Your task to perform on an android device: Search for flights from Boston to Zurich Image 0: 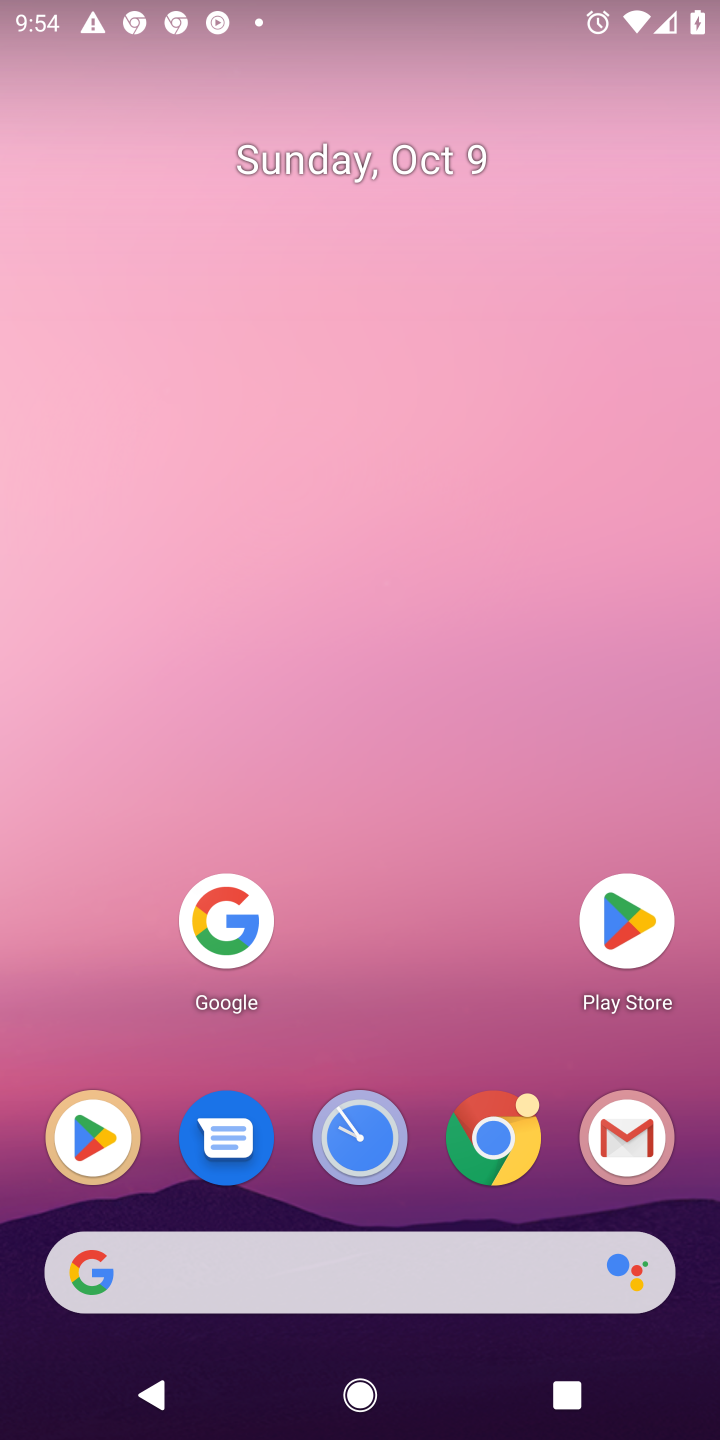
Step 0: click (224, 913)
Your task to perform on an android device: Search for flights from Boston to Zurich Image 1: 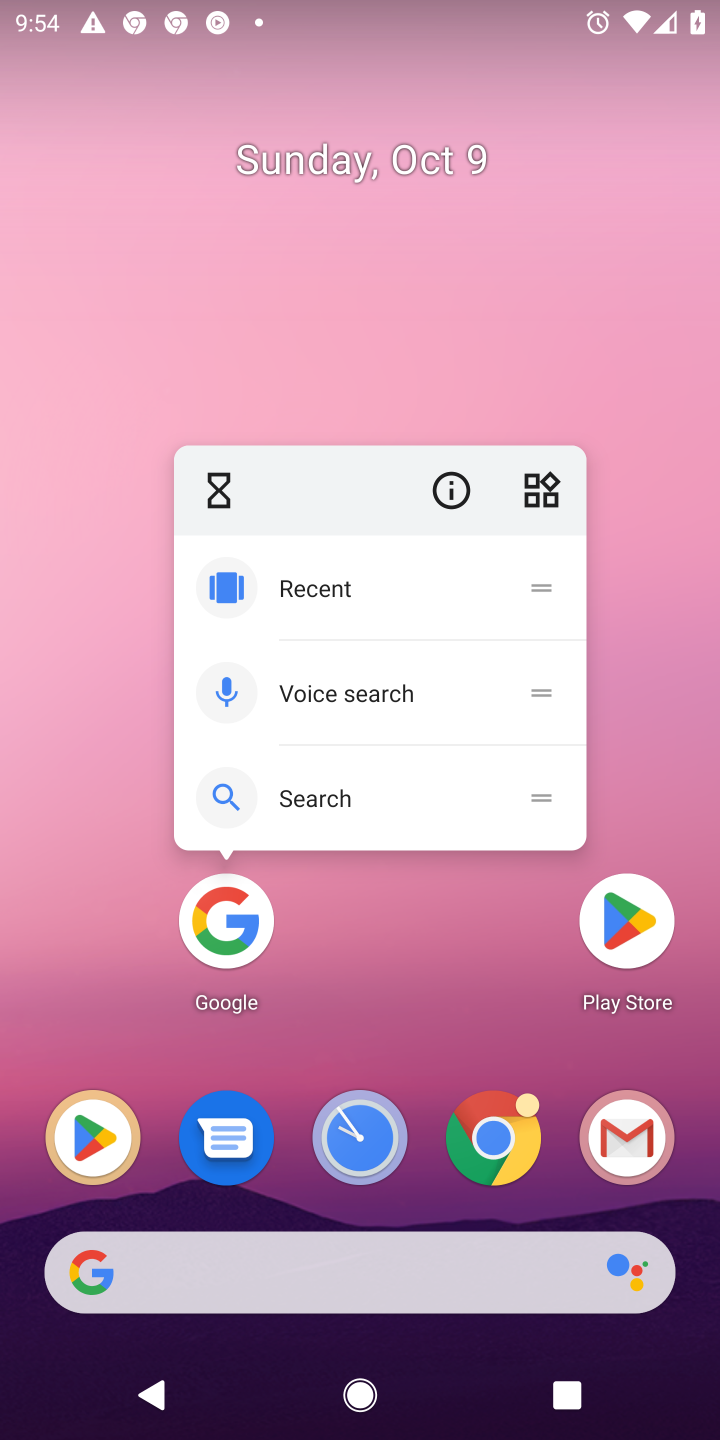
Step 1: click (224, 913)
Your task to perform on an android device: Search for flights from Boston to Zurich Image 2: 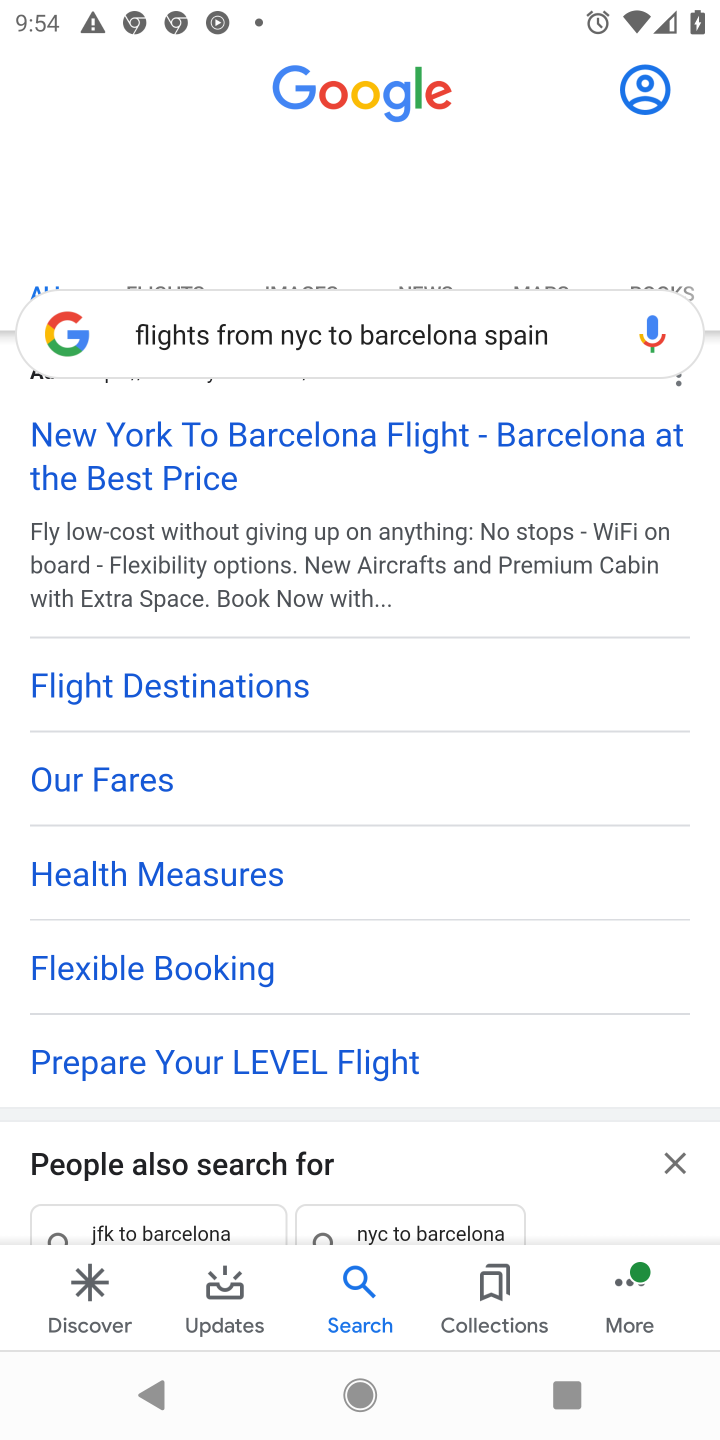
Step 2: click (445, 315)
Your task to perform on an android device: Search for flights from Boston to Zurich Image 3: 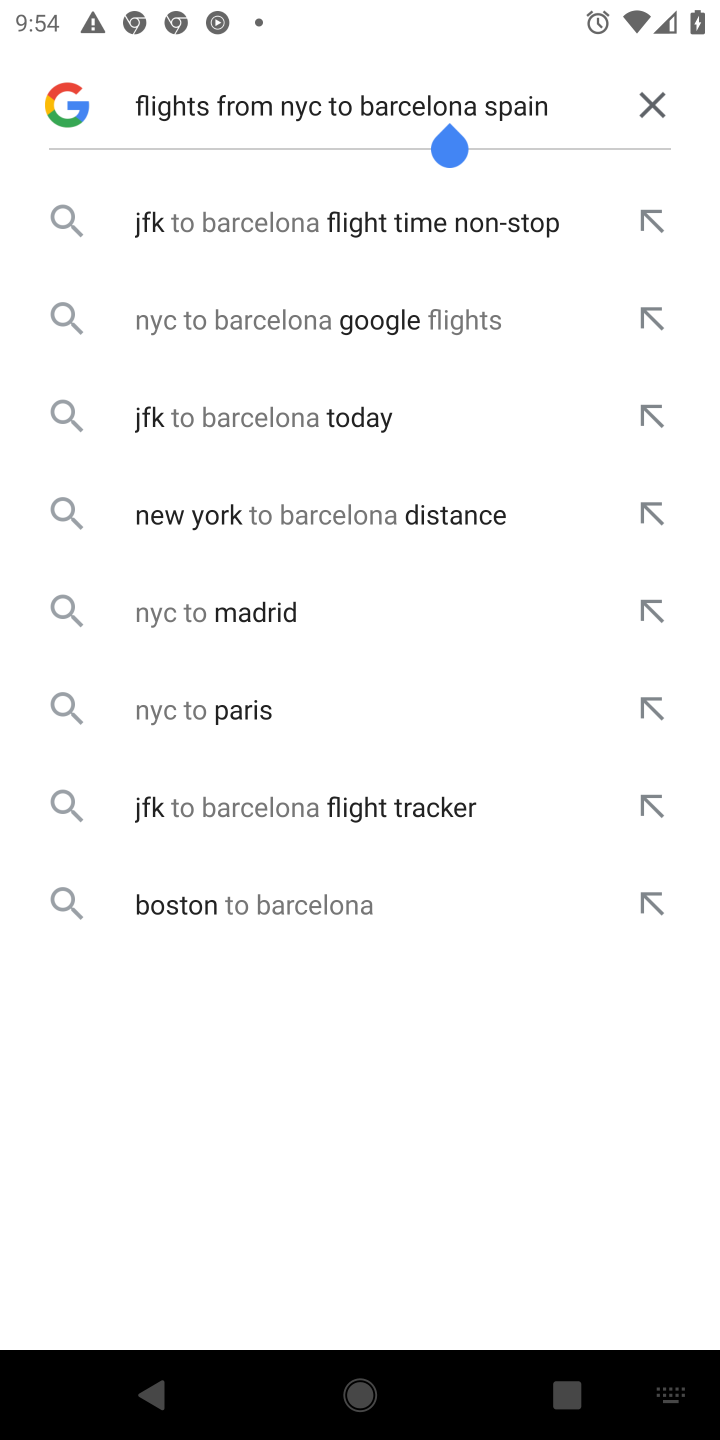
Step 3: click (662, 98)
Your task to perform on an android device: Search for flights from Boston to Zurich Image 4: 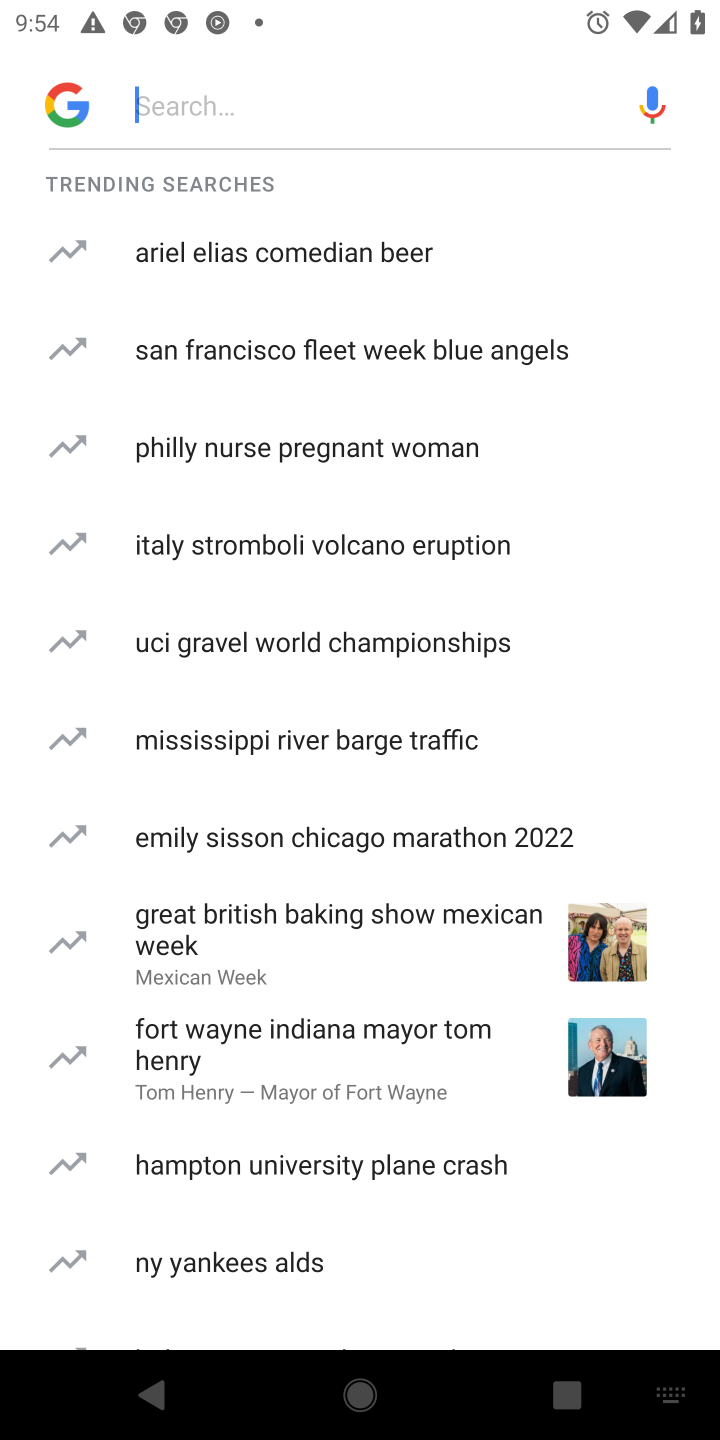
Step 4: click (215, 82)
Your task to perform on an android device: Search for flights from Boston to Zurich Image 5: 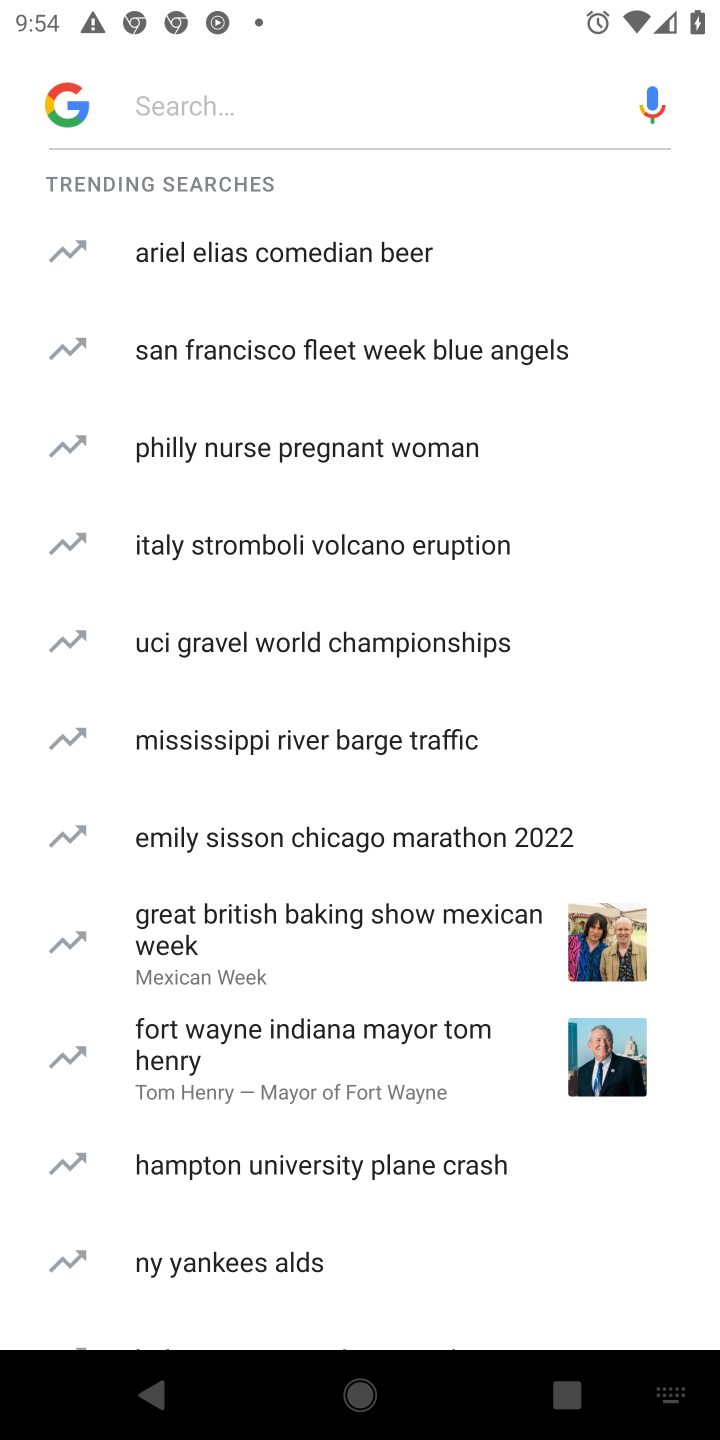
Step 5: type "flights from Boston to Zurich "
Your task to perform on an android device: Search for flights from Boston to Zurich Image 6: 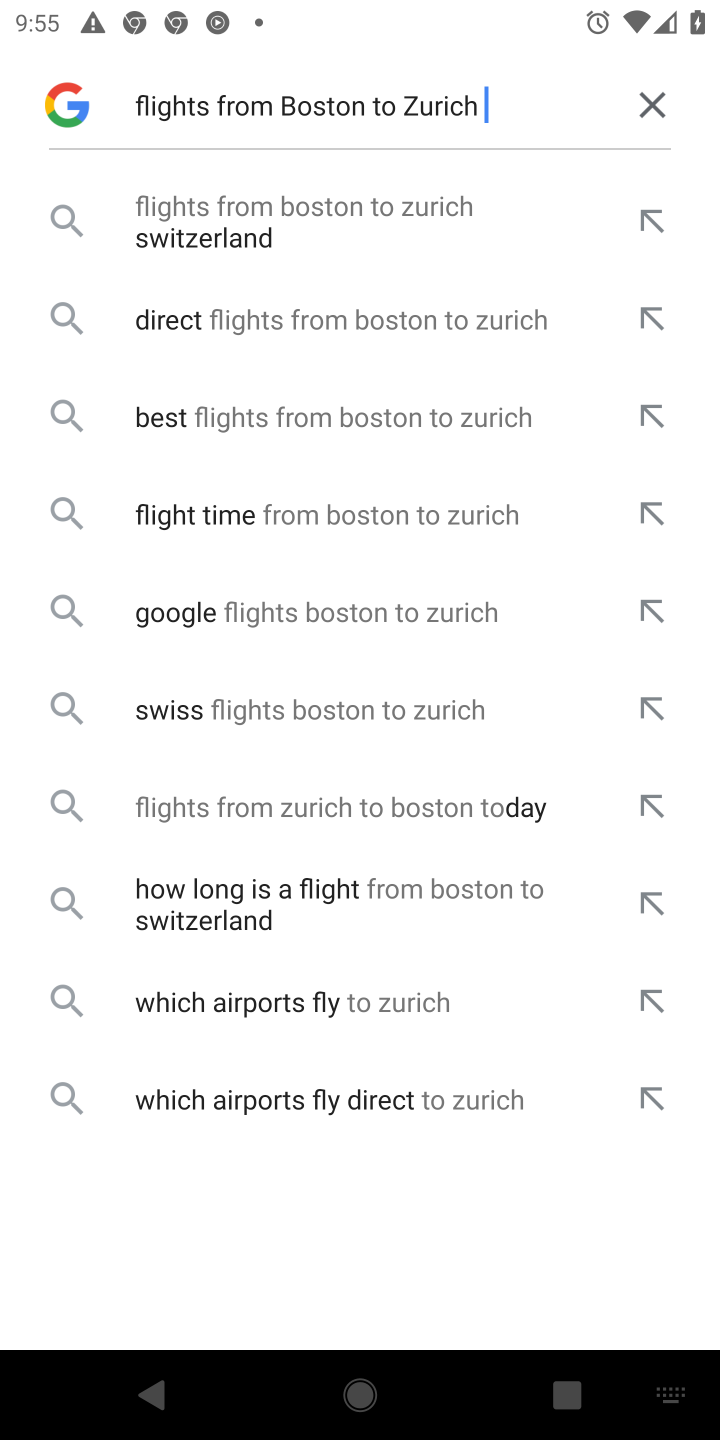
Step 6: click (367, 337)
Your task to perform on an android device: Search for flights from Boston to Zurich Image 7: 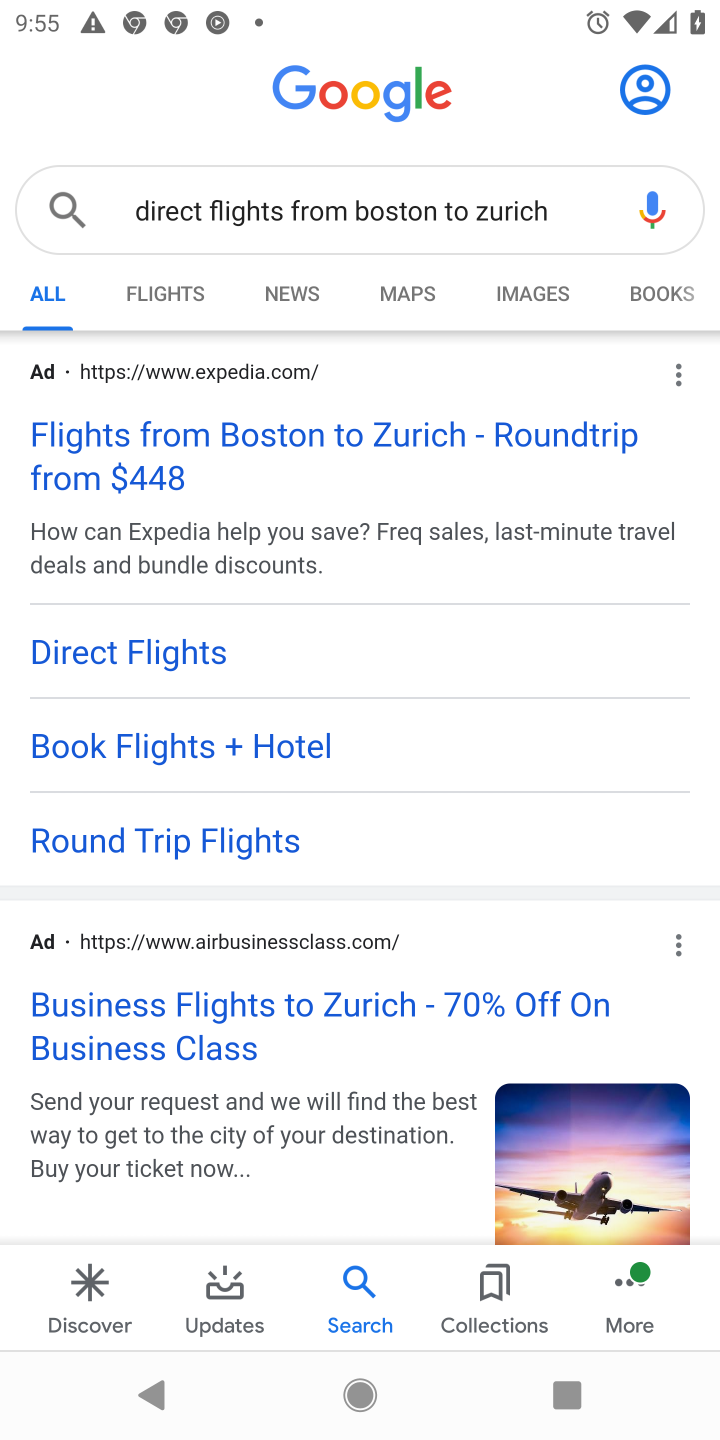
Step 7: click (250, 423)
Your task to perform on an android device: Search for flights from Boston to Zurich Image 8: 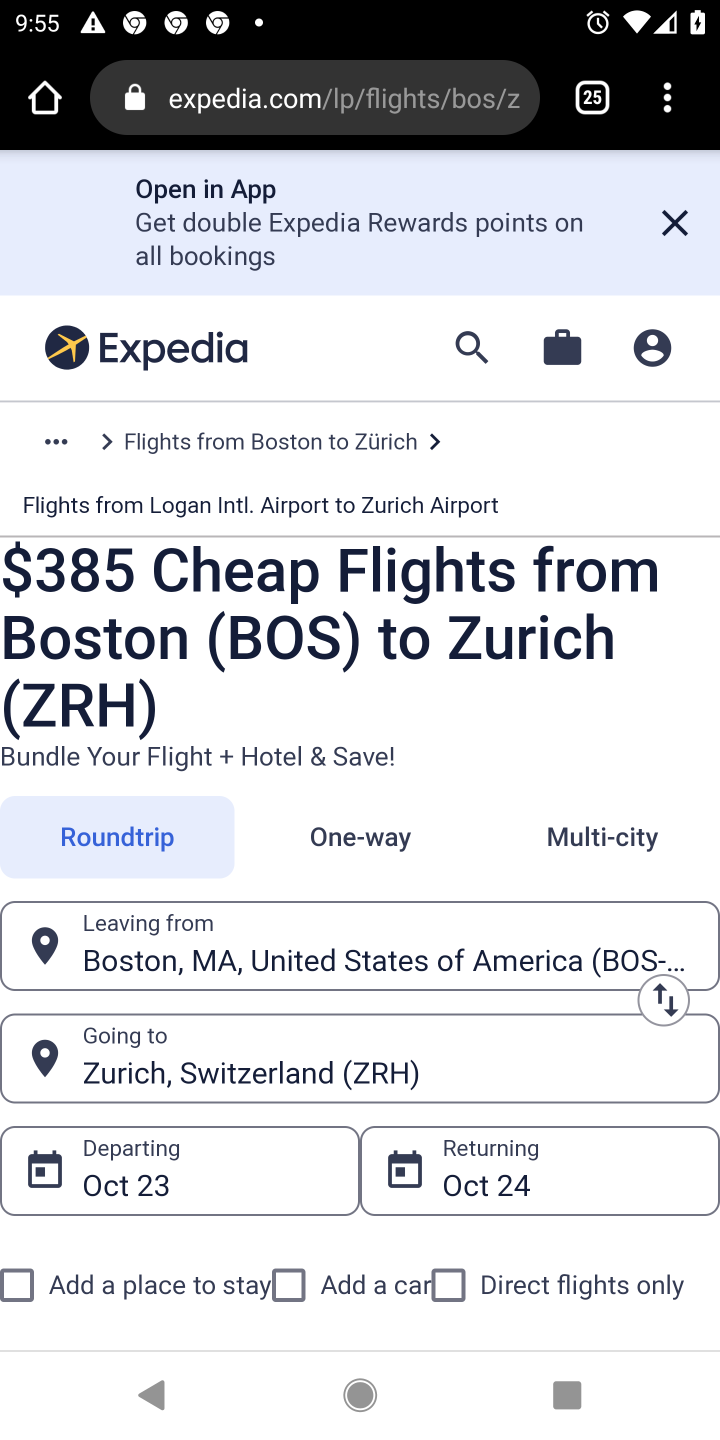
Step 8: task complete